Your task to perform on an android device: open app "NewsBreak: Local News & Alerts" Image 0: 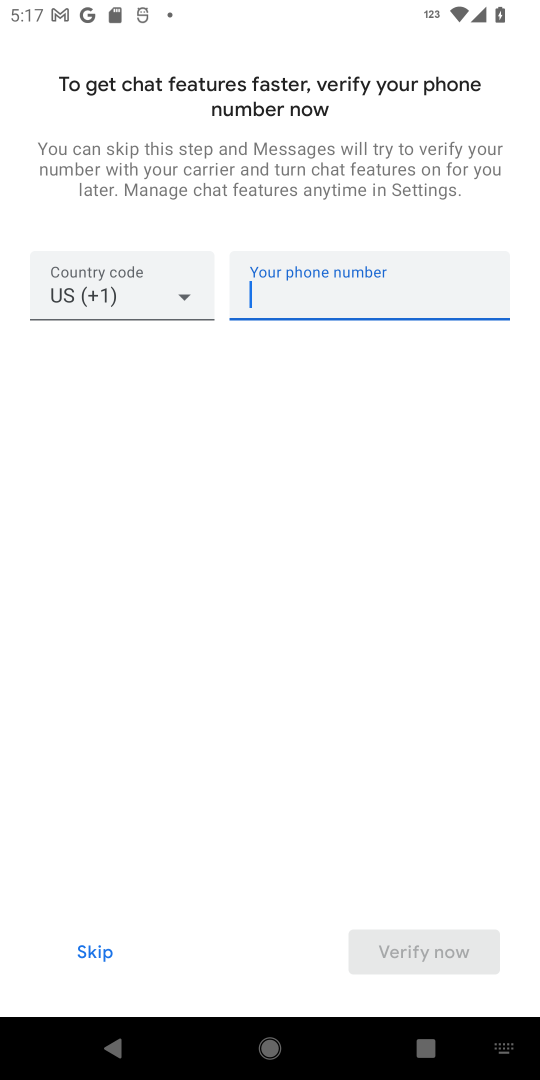
Step 0: press home button
Your task to perform on an android device: open app "NewsBreak: Local News & Alerts" Image 1: 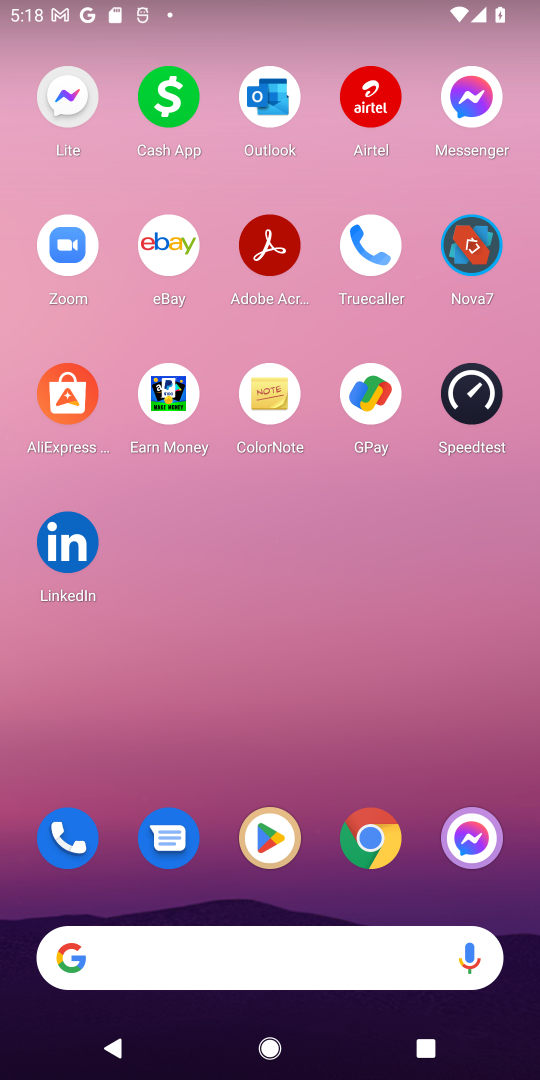
Step 1: drag from (233, 928) to (312, 143)
Your task to perform on an android device: open app "NewsBreak: Local News & Alerts" Image 2: 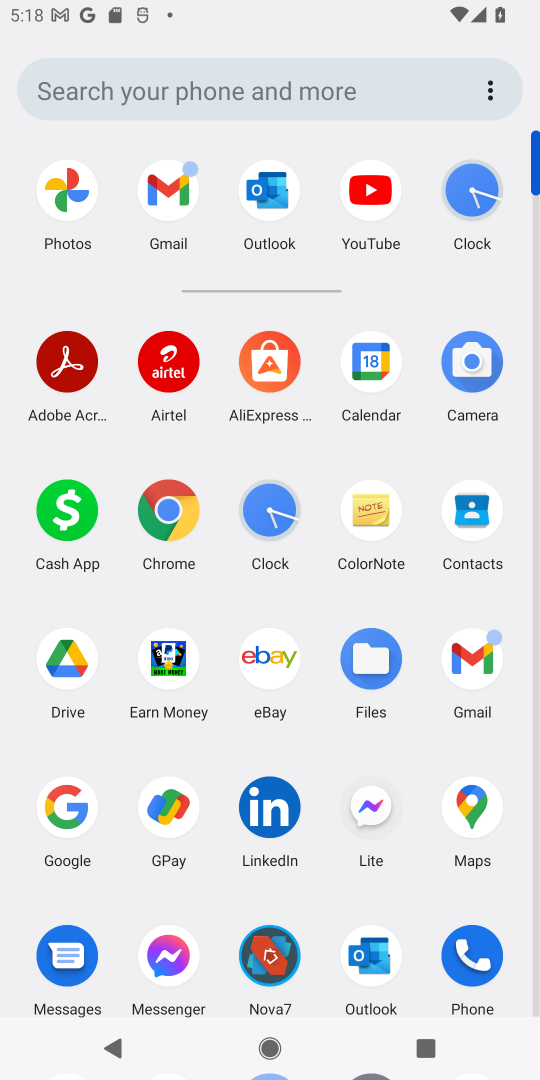
Step 2: drag from (320, 909) to (282, 453)
Your task to perform on an android device: open app "NewsBreak: Local News & Alerts" Image 3: 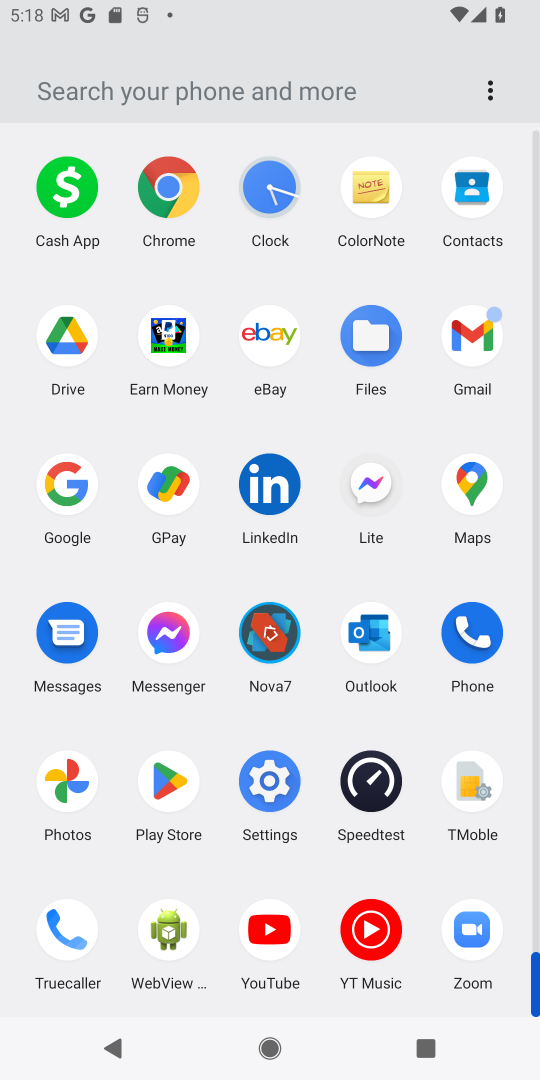
Step 3: click (169, 791)
Your task to perform on an android device: open app "NewsBreak: Local News & Alerts" Image 4: 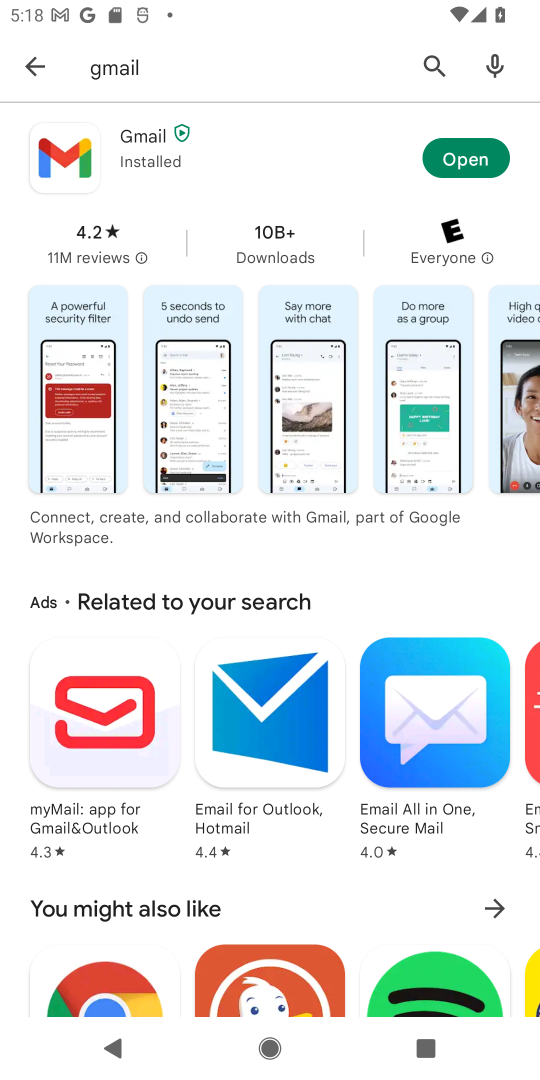
Step 4: press back button
Your task to perform on an android device: open app "NewsBreak: Local News & Alerts" Image 5: 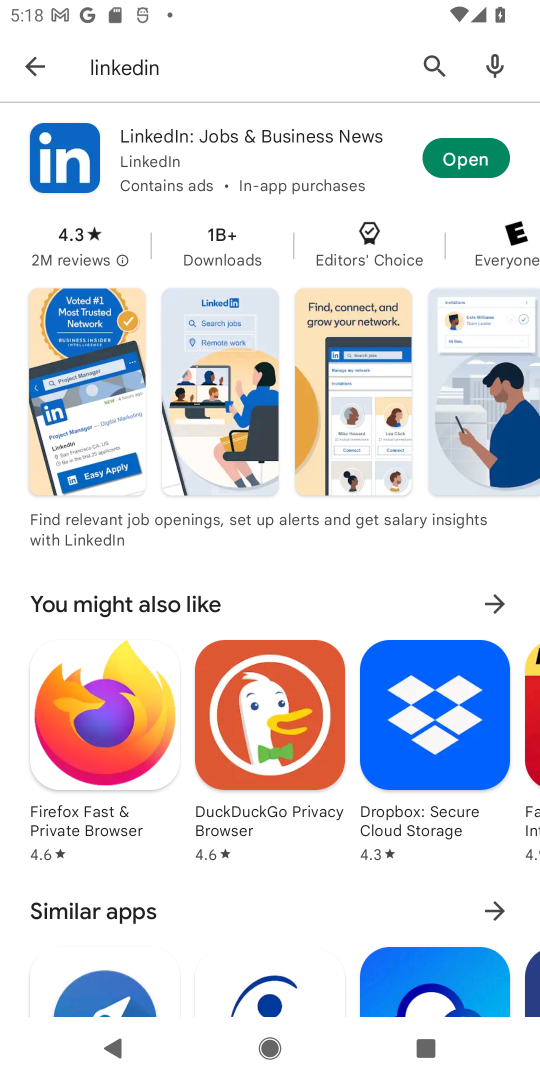
Step 5: press back button
Your task to perform on an android device: open app "NewsBreak: Local News & Alerts" Image 6: 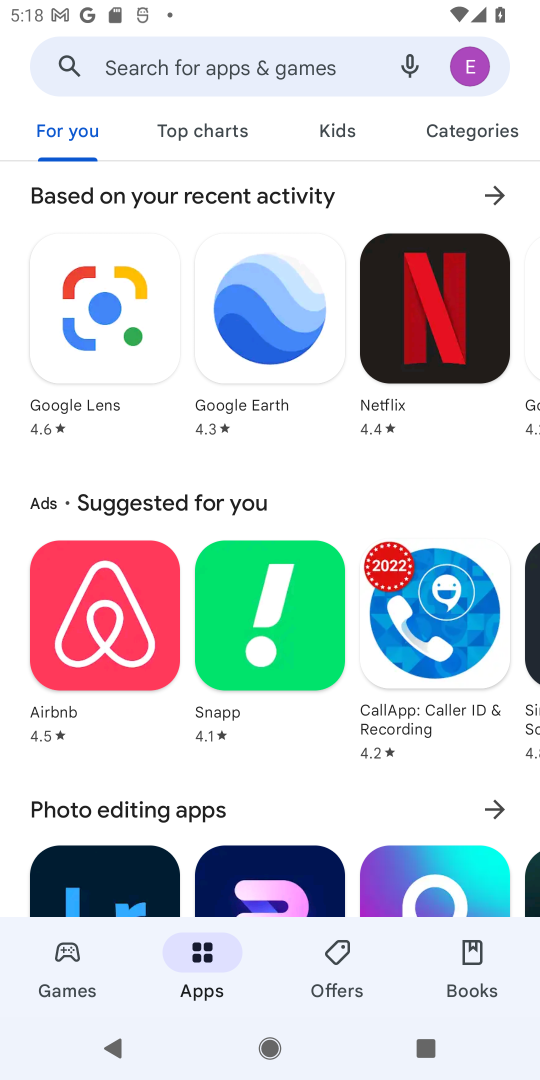
Step 6: click (270, 73)
Your task to perform on an android device: open app "NewsBreak: Local News & Alerts" Image 7: 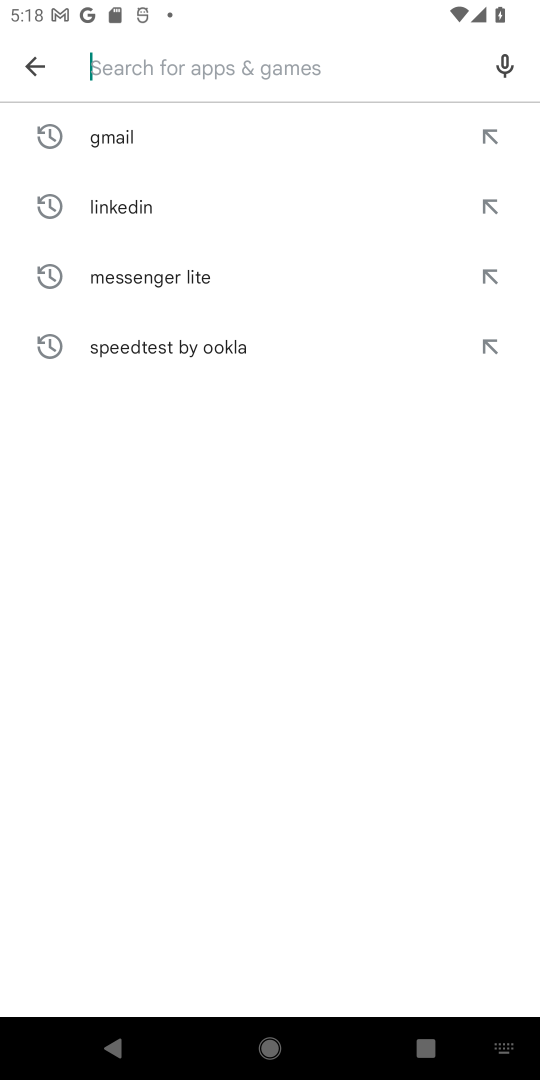
Step 7: type "NewsBreak: Local News & Alerts"
Your task to perform on an android device: open app "NewsBreak: Local News & Alerts" Image 8: 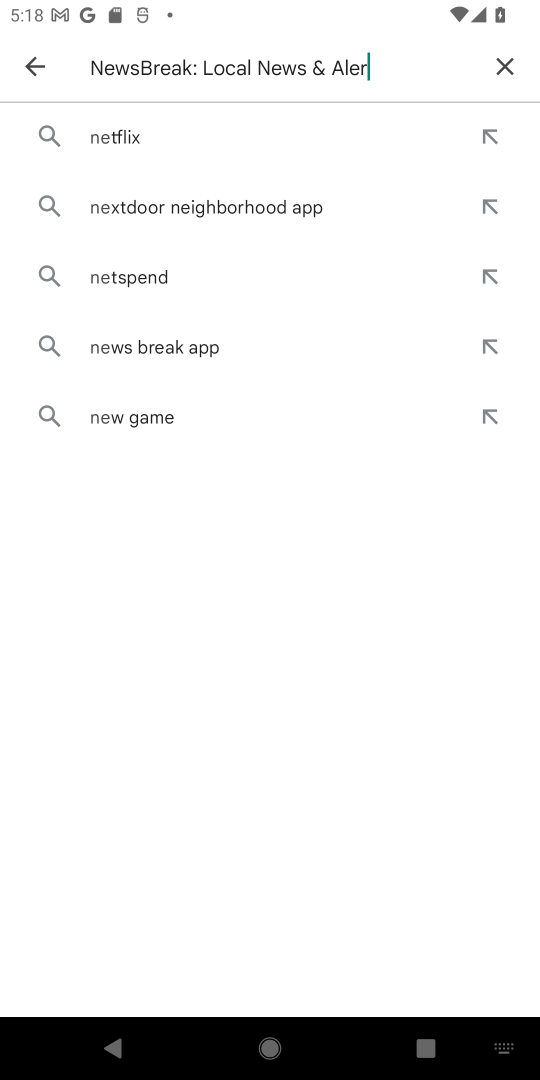
Step 8: type ""
Your task to perform on an android device: open app "NewsBreak: Local News & Alerts" Image 9: 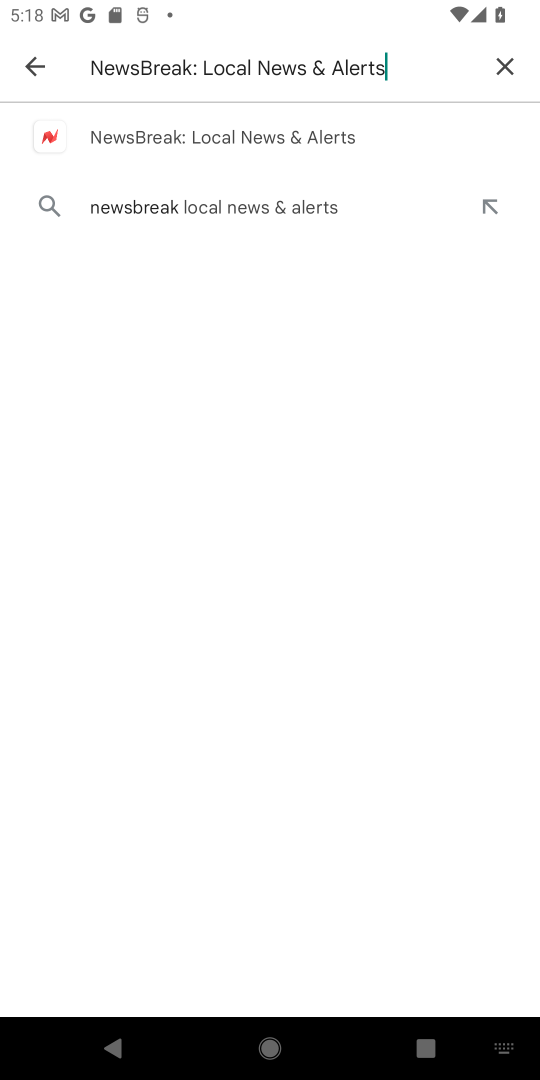
Step 9: click (243, 148)
Your task to perform on an android device: open app "NewsBreak: Local News & Alerts" Image 10: 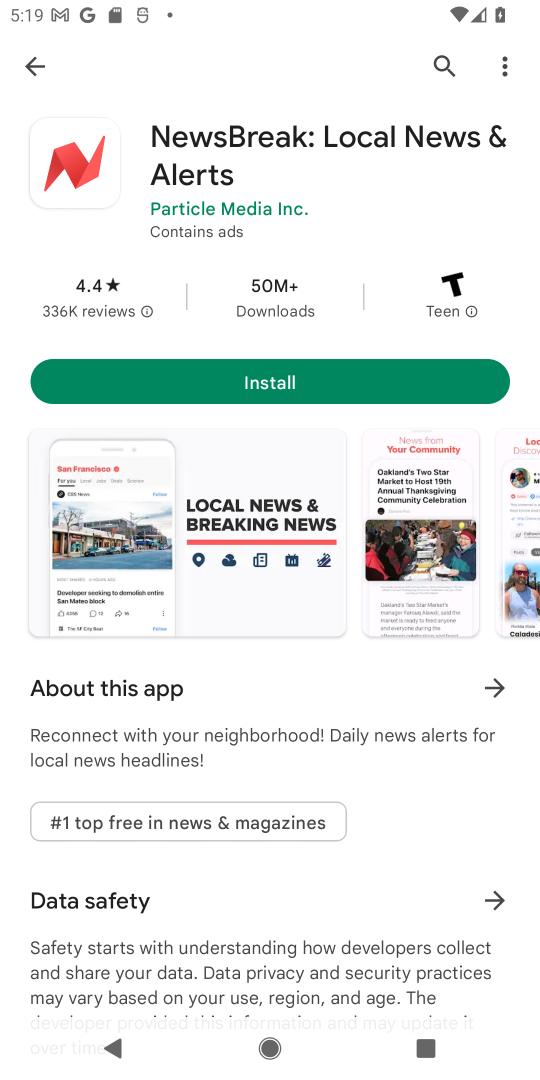
Step 10: task complete